Your task to perform on an android device: Is it going to rain today? Image 0: 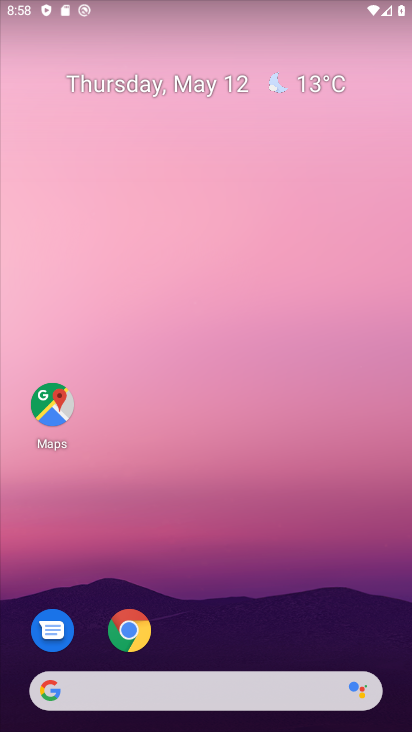
Step 0: click (306, 80)
Your task to perform on an android device: Is it going to rain today? Image 1: 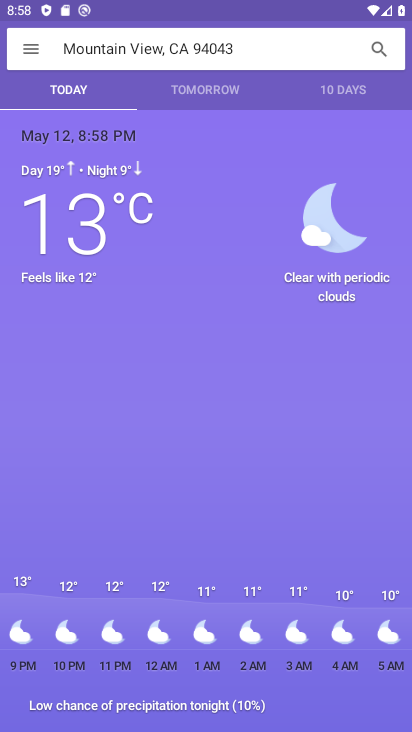
Step 1: task complete